Your task to perform on an android device: Open the phone app and click the voicemail tab. Image 0: 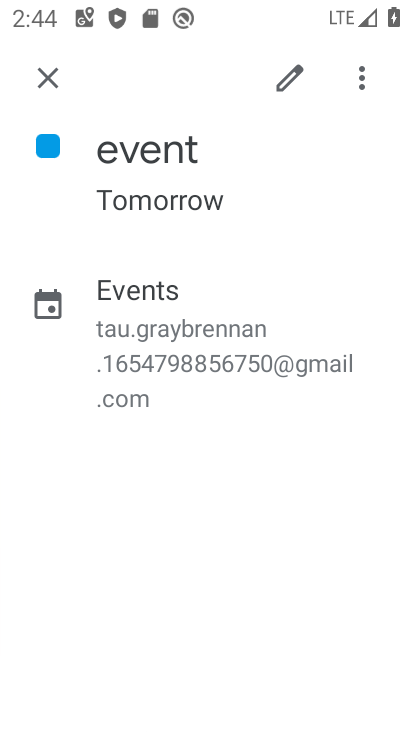
Step 0: press home button
Your task to perform on an android device: Open the phone app and click the voicemail tab. Image 1: 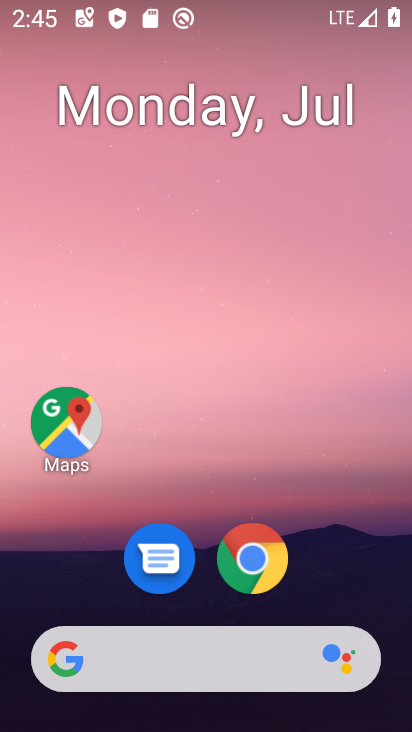
Step 1: drag from (361, 592) to (376, 112)
Your task to perform on an android device: Open the phone app and click the voicemail tab. Image 2: 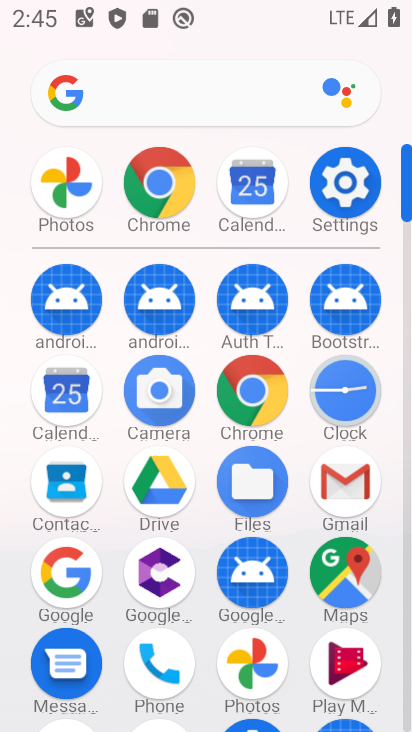
Step 2: click (157, 670)
Your task to perform on an android device: Open the phone app and click the voicemail tab. Image 3: 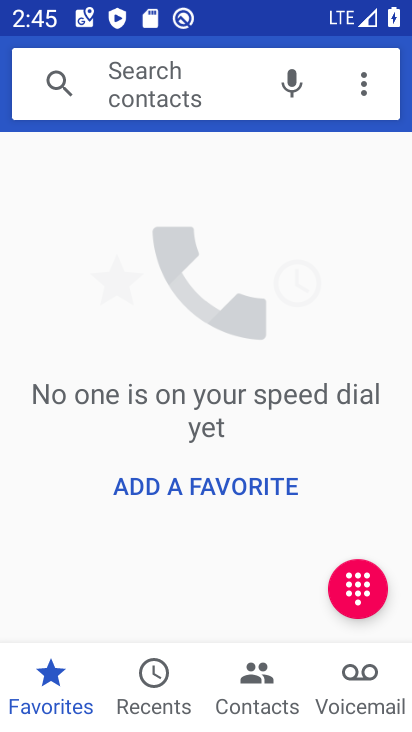
Step 3: click (364, 663)
Your task to perform on an android device: Open the phone app and click the voicemail tab. Image 4: 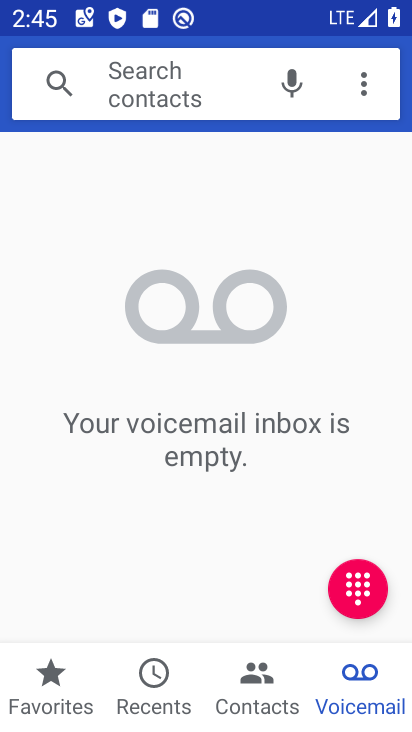
Step 4: task complete